Your task to perform on an android device: Go to sound settings Image 0: 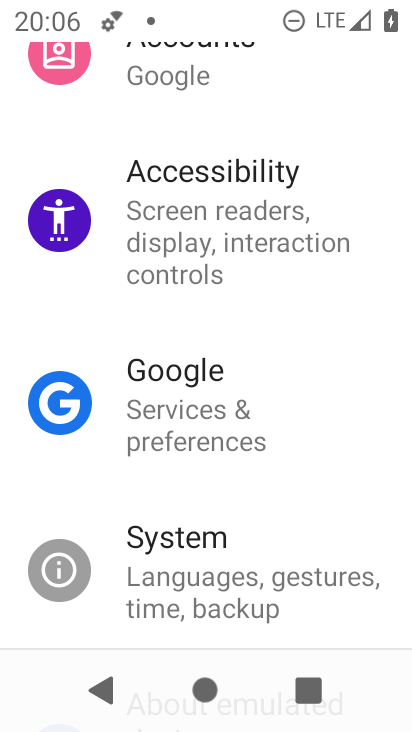
Step 0: press home button
Your task to perform on an android device: Go to sound settings Image 1: 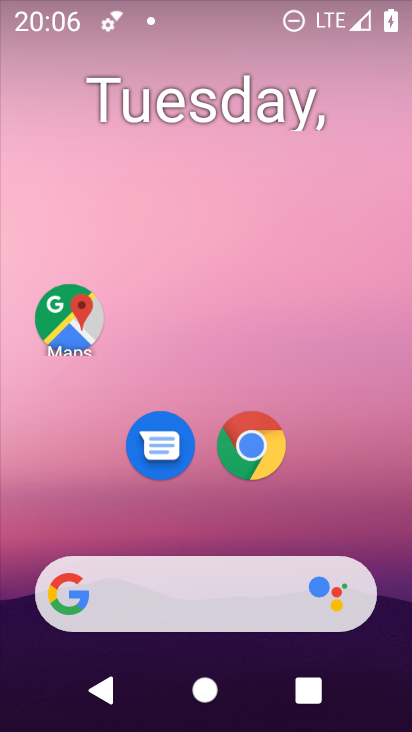
Step 1: drag from (190, 539) to (171, 128)
Your task to perform on an android device: Go to sound settings Image 2: 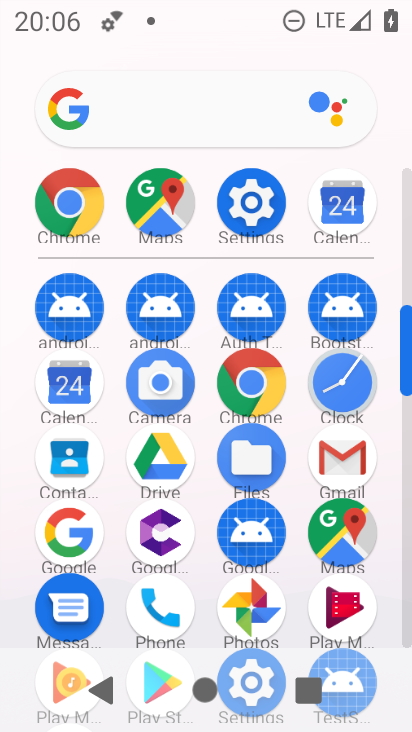
Step 2: click (247, 212)
Your task to perform on an android device: Go to sound settings Image 3: 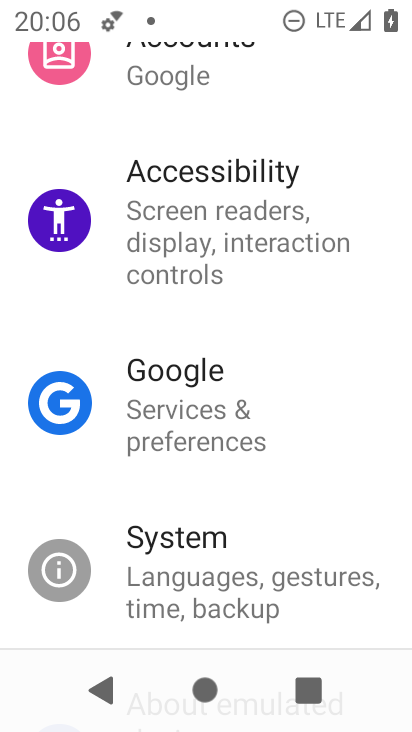
Step 3: drag from (164, 568) to (256, 13)
Your task to perform on an android device: Go to sound settings Image 4: 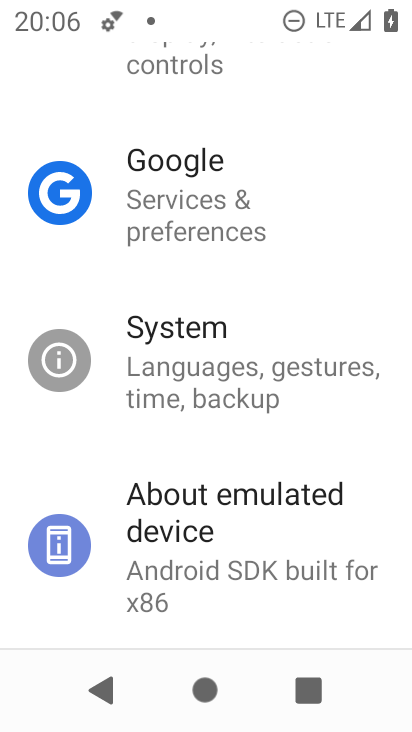
Step 4: drag from (216, 249) to (129, 724)
Your task to perform on an android device: Go to sound settings Image 5: 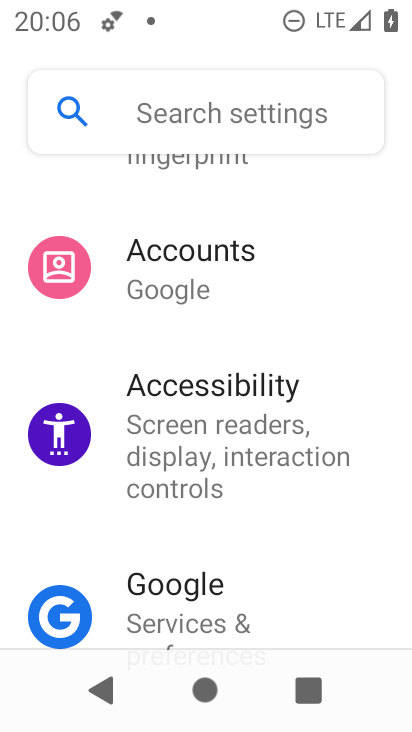
Step 5: drag from (228, 246) to (184, 479)
Your task to perform on an android device: Go to sound settings Image 6: 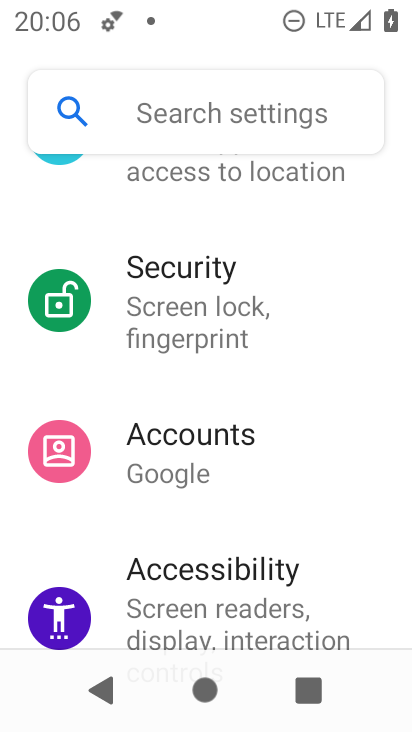
Step 6: drag from (213, 244) to (172, 701)
Your task to perform on an android device: Go to sound settings Image 7: 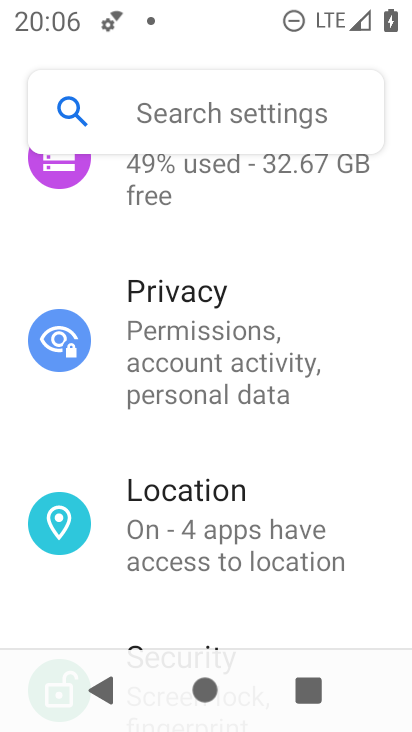
Step 7: drag from (296, 156) to (218, 508)
Your task to perform on an android device: Go to sound settings Image 8: 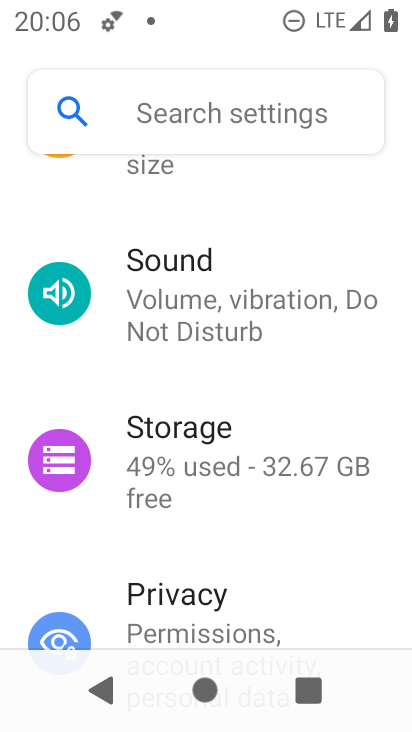
Step 8: click (230, 315)
Your task to perform on an android device: Go to sound settings Image 9: 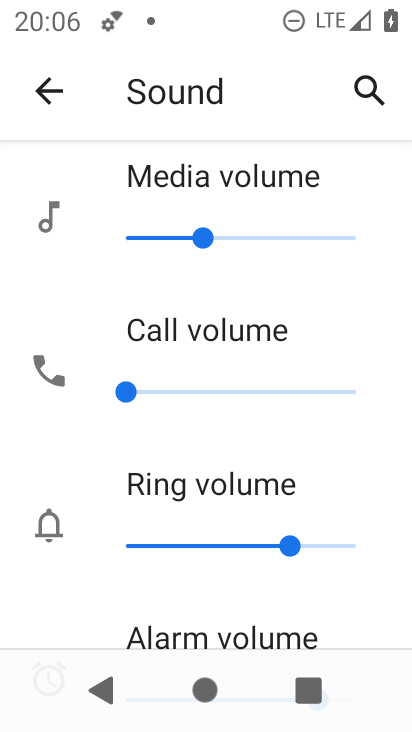
Step 9: task complete